Your task to perform on an android device: toggle improve location accuracy Image 0: 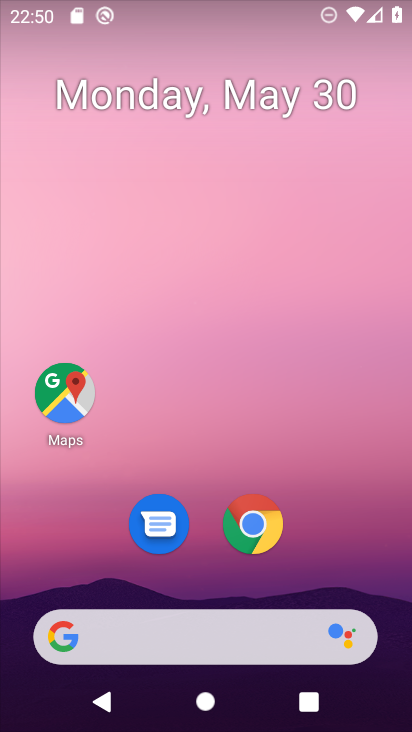
Step 0: drag from (353, 523) to (303, 30)
Your task to perform on an android device: toggle improve location accuracy Image 1: 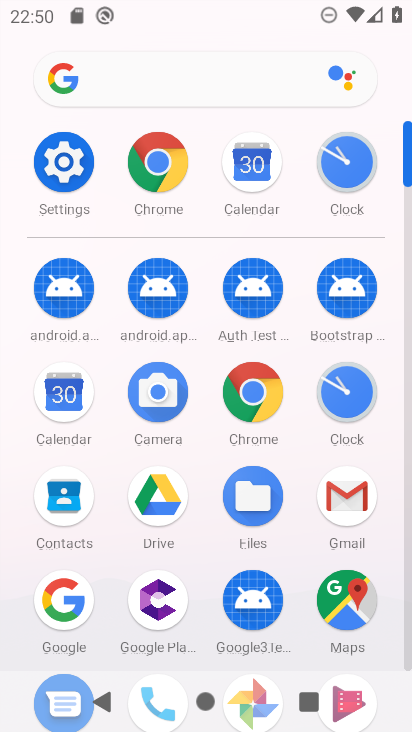
Step 1: click (72, 157)
Your task to perform on an android device: toggle improve location accuracy Image 2: 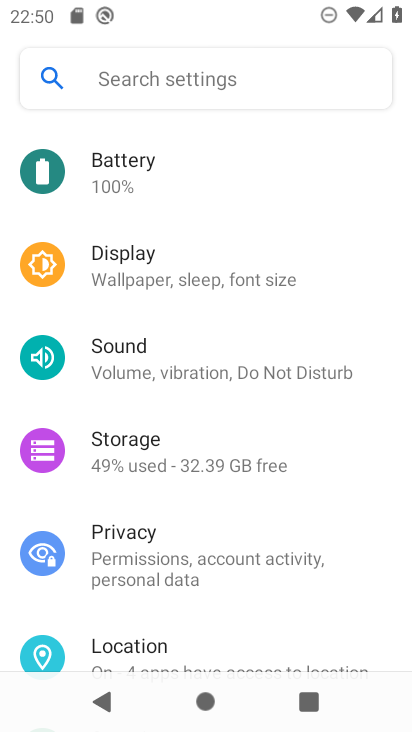
Step 2: drag from (255, 503) to (260, 317)
Your task to perform on an android device: toggle improve location accuracy Image 3: 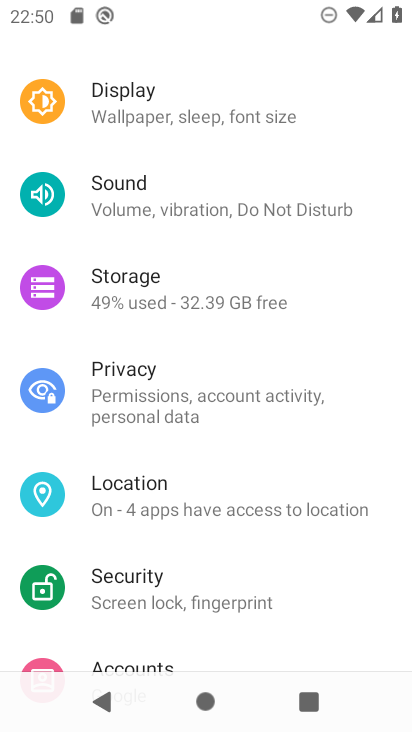
Step 3: click (247, 496)
Your task to perform on an android device: toggle improve location accuracy Image 4: 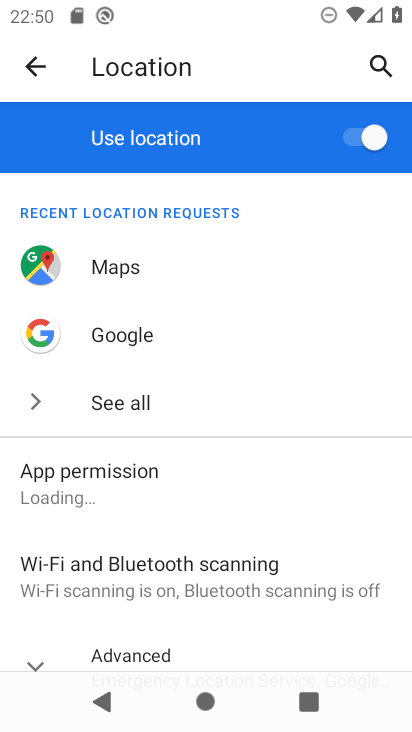
Step 4: drag from (210, 587) to (216, 214)
Your task to perform on an android device: toggle improve location accuracy Image 5: 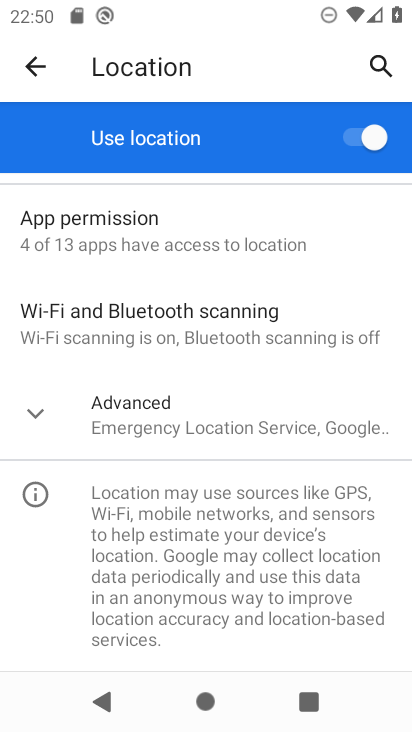
Step 5: click (37, 413)
Your task to perform on an android device: toggle improve location accuracy Image 6: 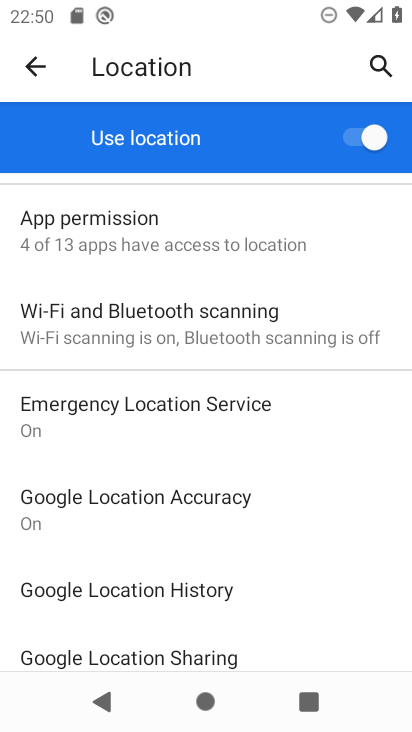
Step 6: click (151, 516)
Your task to perform on an android device: toggle improve location accuracy Image 7: 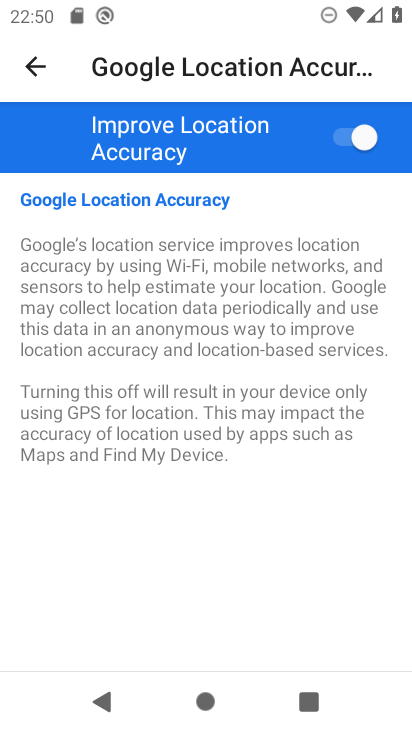
Step 7: click (352, 123)
Your task to perform on an android device: toggle improve location accuracy Image 8: 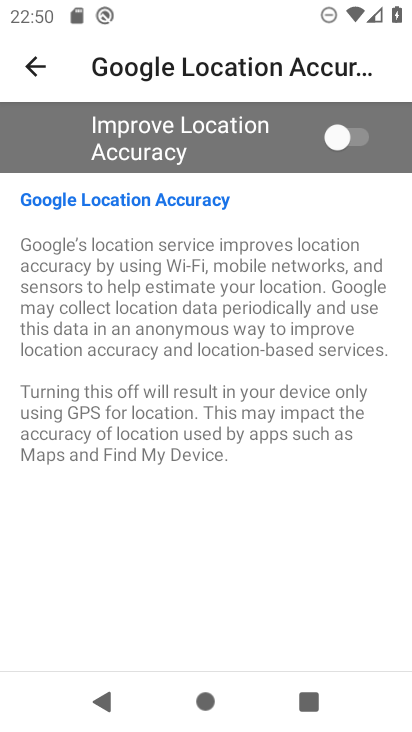
Step 8: task complete